Your task to perform on an android device: turn on location history Image 0: 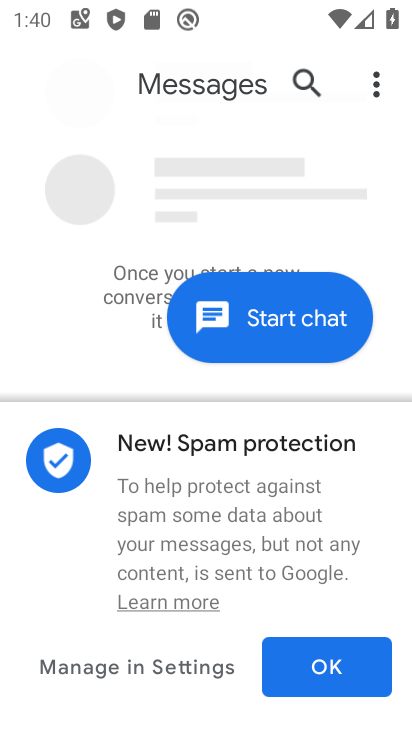
Step 0: press home button
Your task to perform on an android device: turn on location history Image 1: 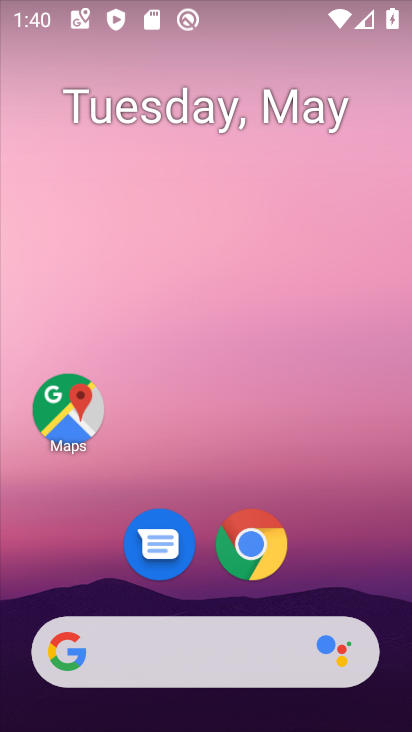
Step 1: drag from (323, 528) to (336, 79)
Your task to perform on an android device: turn on location history Image 2: 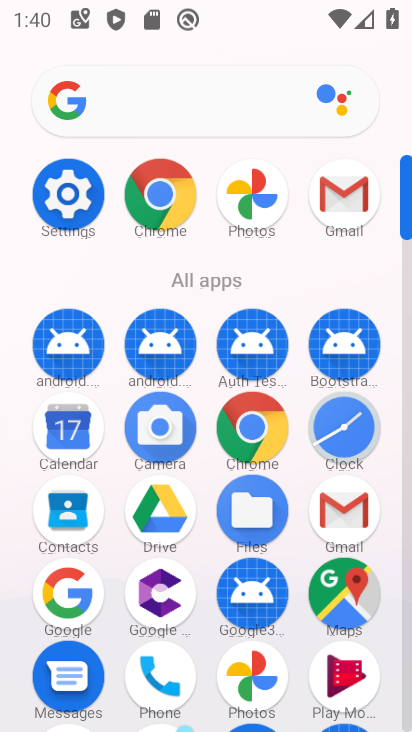
Step 2: click (88, 176)
Your task to perform on an android device: turn on location history Image 3: 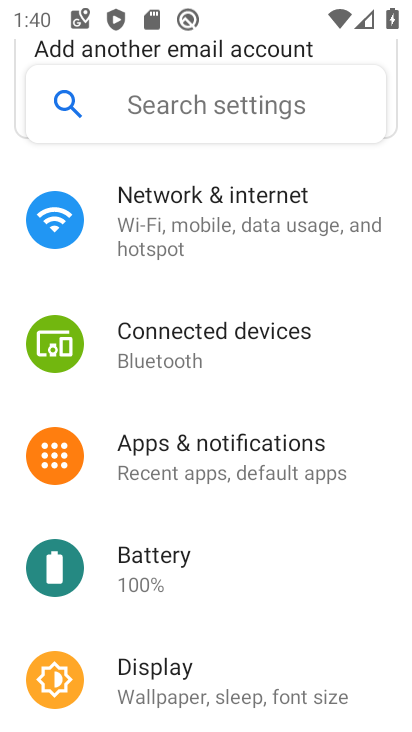
Step 3: drag from (223, 579) to (277, 40)
Your task to perform on an android device: turn on location history Image 4: 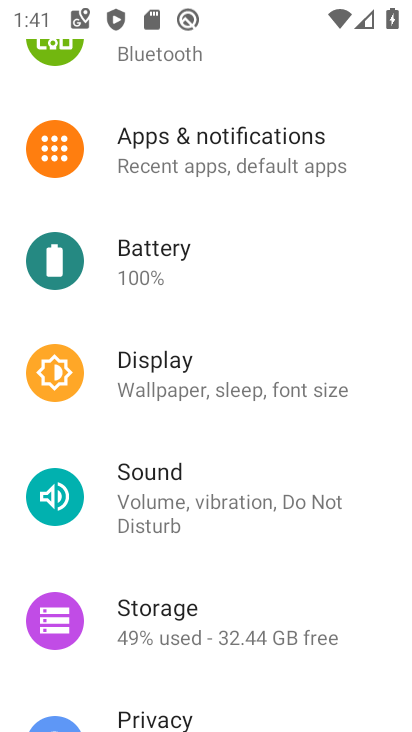
Step 4: drag from (258, 514) to (304, 63)
Your task to perform on an android device: turn on location history Image 5: 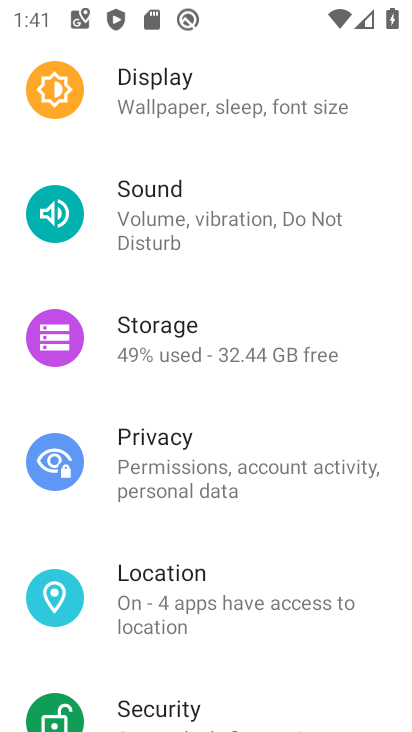
Step 5: click (205, 620)
Your task to perform on an android device: turn on location history Image 6: 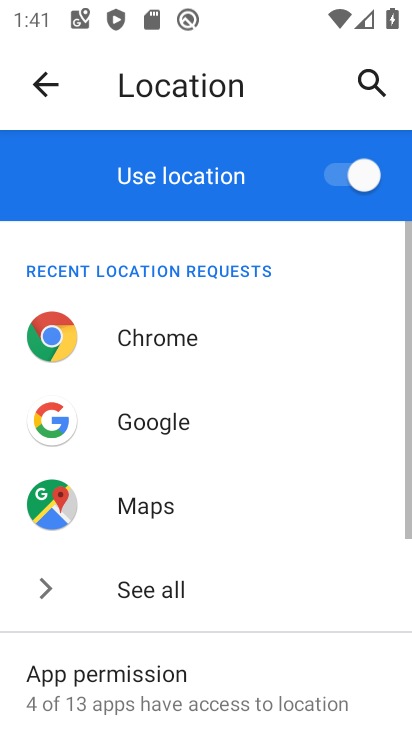
Step 6: drag from (186, 623) to (305, 78)
Your task to perform on an android device: turn on location history Image 7: 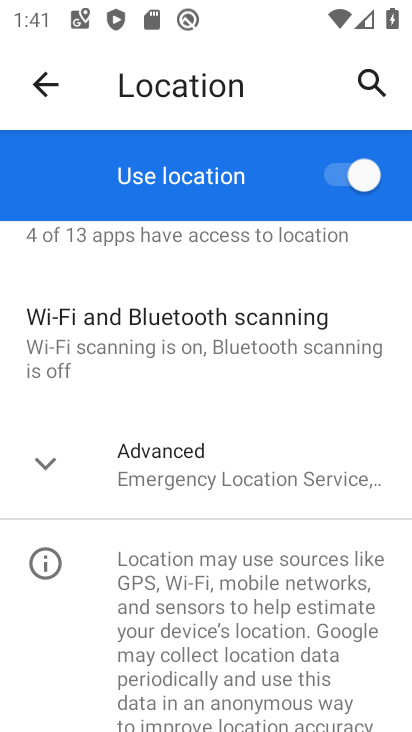
Step 7: click (172, 461)
Your task to perform on an android device: turn on location history Image 8: 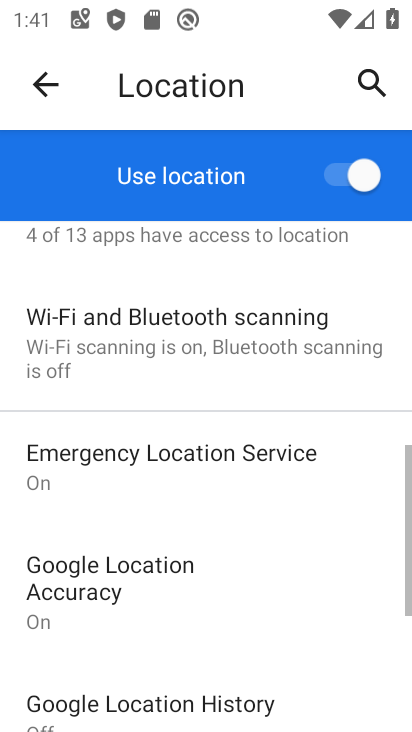
Step 8: drag from (247, 619) to (325, 160)
Your task to perform on an android device: turn on location history Image 9: 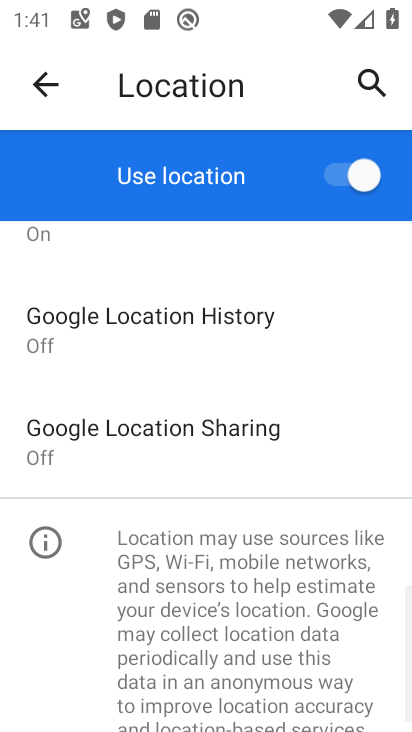
Step 9: click (216, 331)
Your task to perform on an android device: turn on location history Image 10: 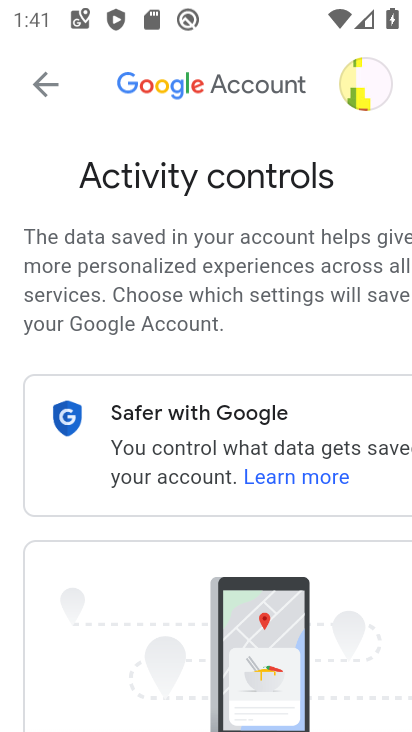
Step 10: task complete